Your task to perform on an android device: Go to network settings Image 0: 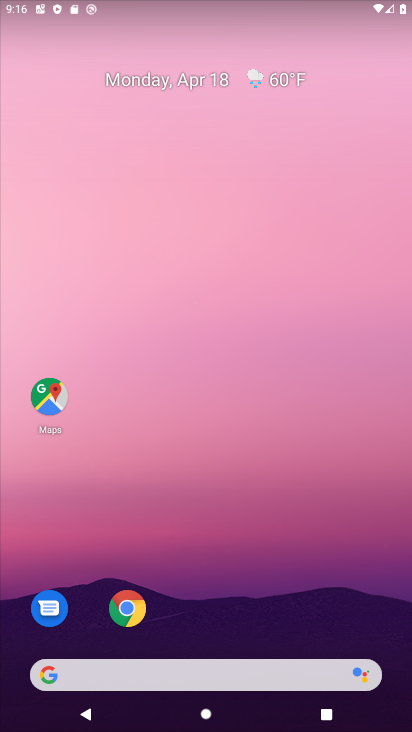
Step 0: drag from (215, 599) to (292, 84)
Your task to perform on an android device: Go to network settings Image 1: 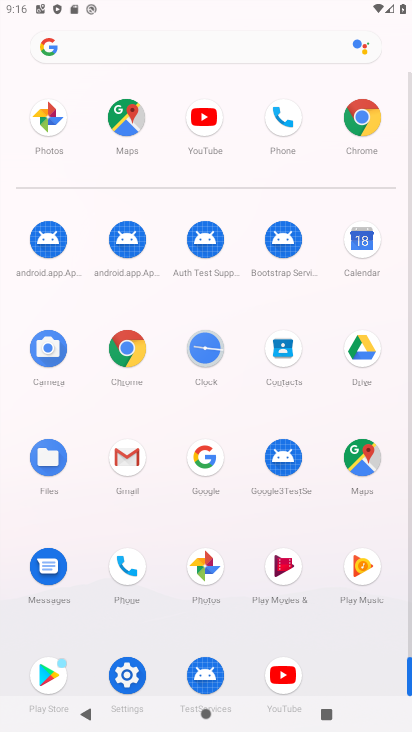
Step 1: click (128, 668)
Your task to perform on an android device: Go to network settings Image 2: 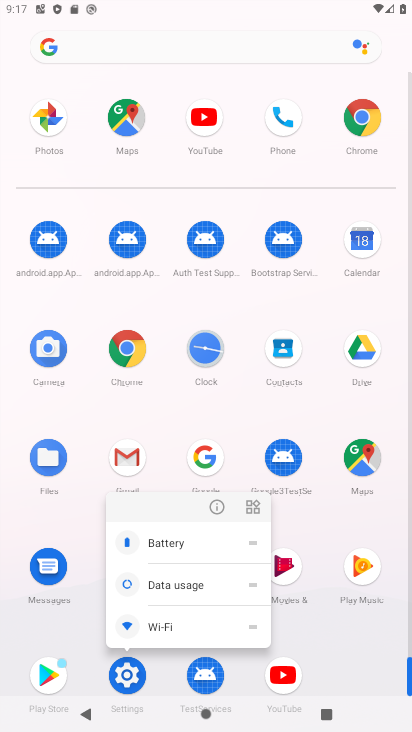
Step 2: click (223, 507)
Your task to perform on an android device: Go to network settings Image 3: 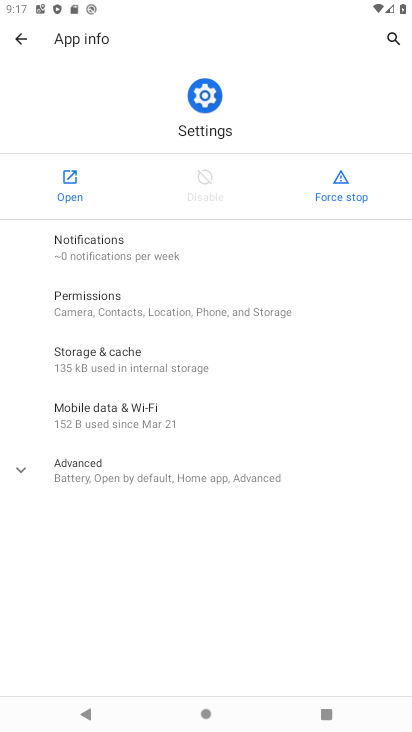
Step 3: click (78, 174)
Your task to perform on an android device: Go to network settings Image 4: 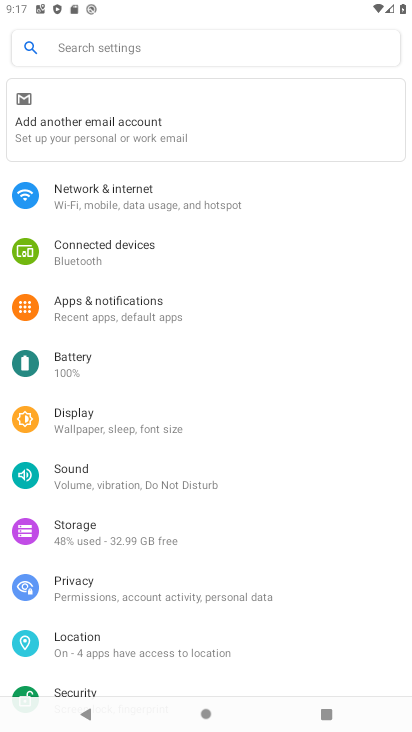
Step 4: click (116, 201)
Your task to perform on an android device: Go to network settings Image 5: 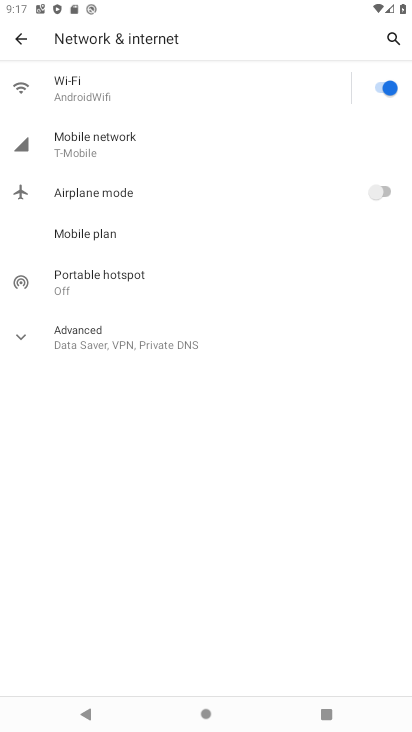
Step 5: click (259, 140)
Your task to perform on an android device: Go to network settings Image 6: 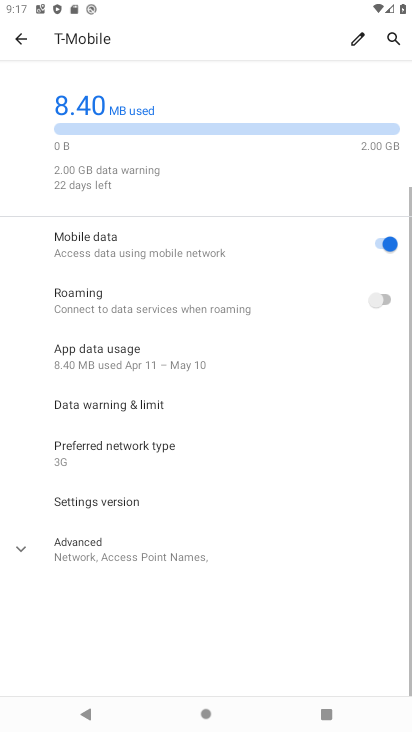
Step 6: drag from (211, 568) to (304, 332)
Your task to perform on an android device: Go to network settings Image 7: 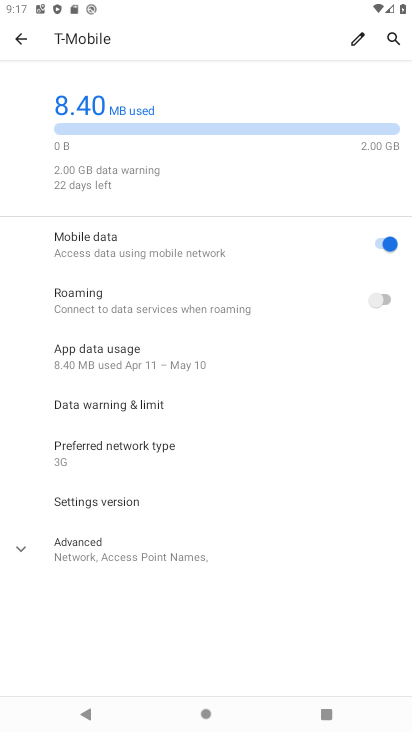
Step 7: click (162, 561)
Your task to perform on an android device: Go to network settings Image 8: 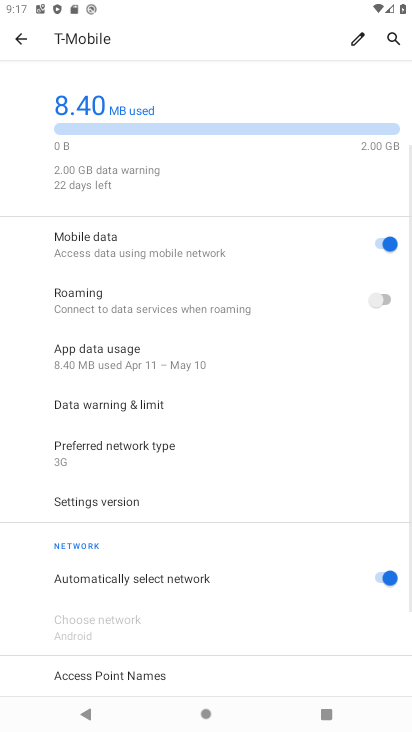
Step 8: task complete